Your task to perform on an android device: Open Amazon Image 0: 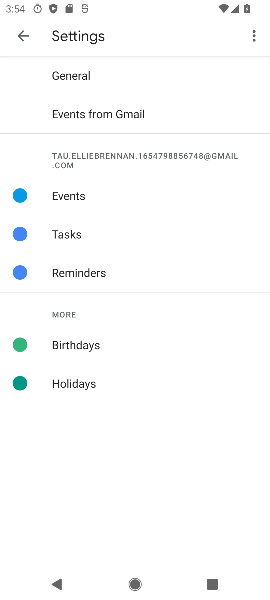
Step 0: click (17, 35)
Your task to perform on an android device: Open Amazon Image 1: 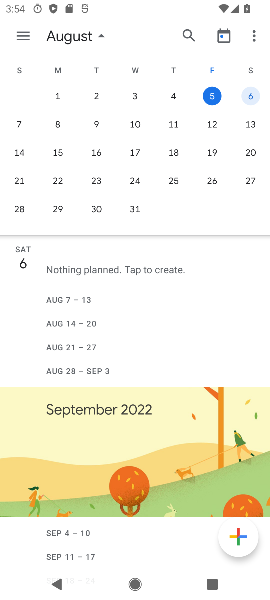
Step 1: press back button
Your task to perform on an android device: Open Amazon Image 2: 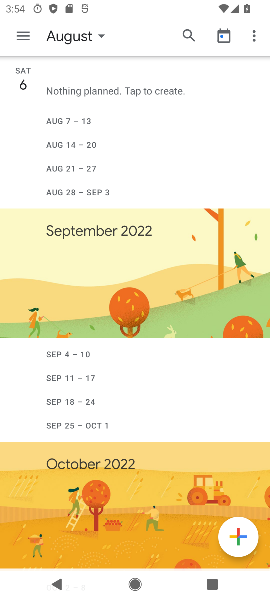
Step 2: press home button
Your task to perform on an android device: Open Amazon Image 3: 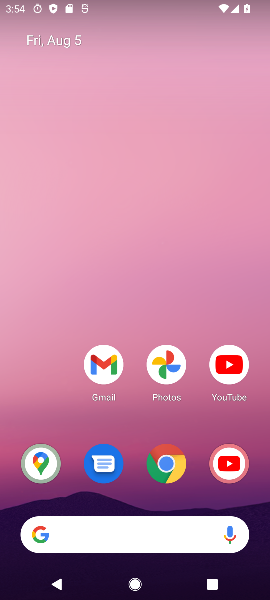
Step 3: drag from (185, 545) to (86, 394)
Your task to perform on an android device: Open Amazon Image 4: 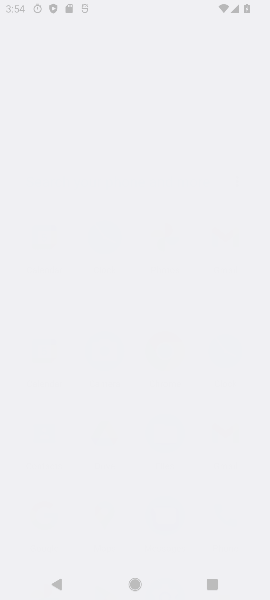
Step 4: drag from (133, 499) to (89, 88)
Your task to perform on an android device: Open Amazon Image 5: 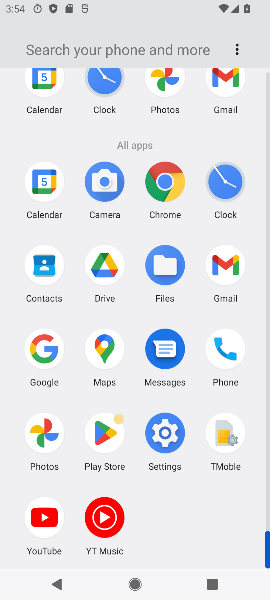
Step 5: drag from (180, 540) to (162, 318)
Your task to perform on an android device: Open Amazon Image 6: 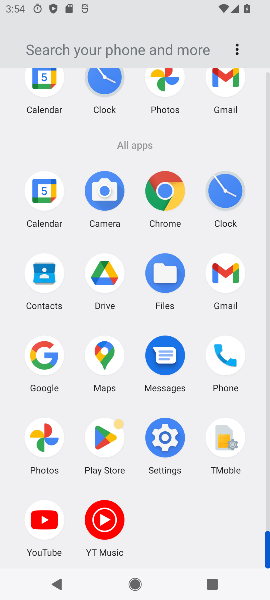
Step 6: click (168, 193)
Your task to perform on an android device: Open Amazon Image 7: 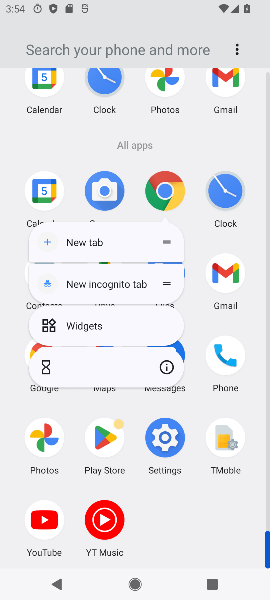
Step 7: click (168, 193)
Your task to perform on an android device: Open Amazon Image 8: 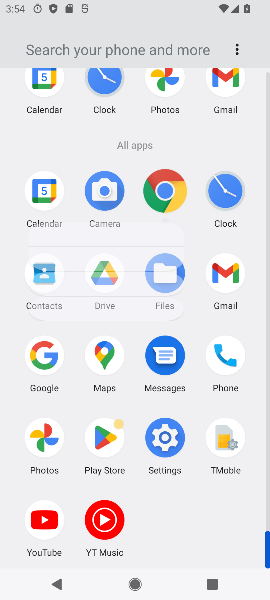
Step 8: click (168, 193)
Your task to perform on an android device: Open Amazon Image 9: 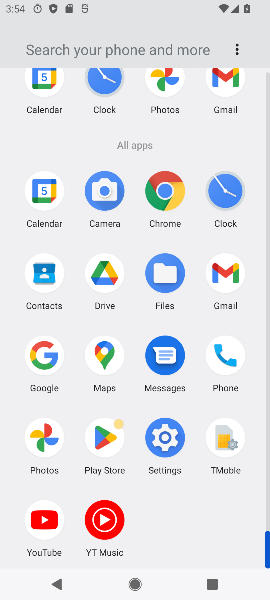
Step 9: click (168, 193)
Your task to perform on an android device: Open Amazon Image 10: 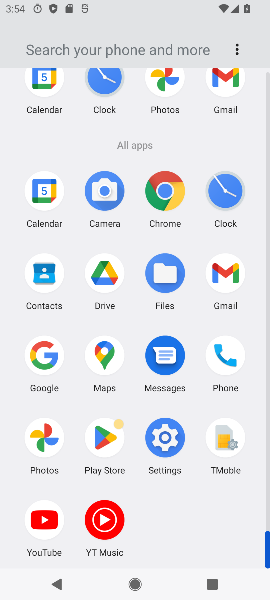
Step 10: click (168, 193)
Your task to perform on an android device: Open Amazon Image 11: 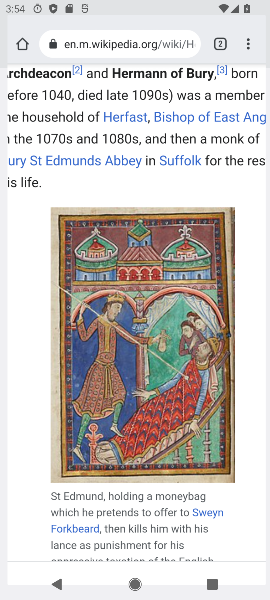
Step 11: click (173, 193)
Your task to perform on an android device: Open Amazon Image 12: 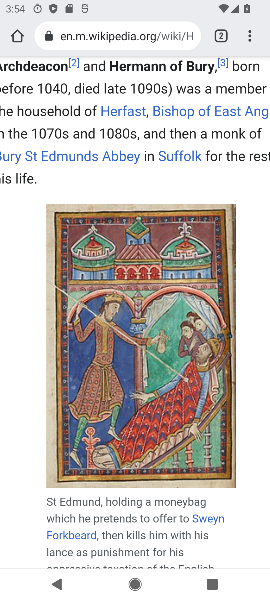
Step 12: drag from (247, 40) to (134, 72)
Your task to perform on an android device: Open Amazon Image 13: 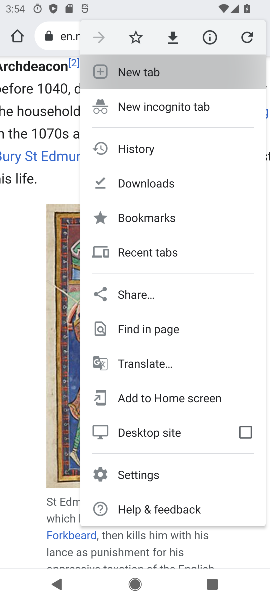
Step 13: click (136, 71)
Your task to perform on an android device: Open Amazon Image 14: 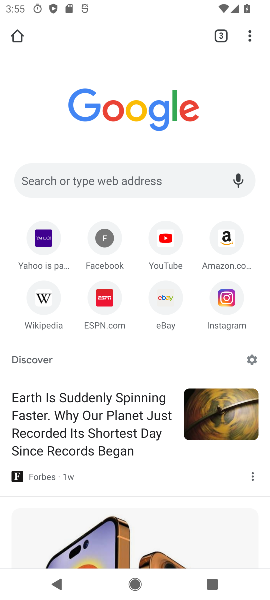
Step 14: click (226, 232)
Your task to perform on an android device: Open Amazon Image 15: 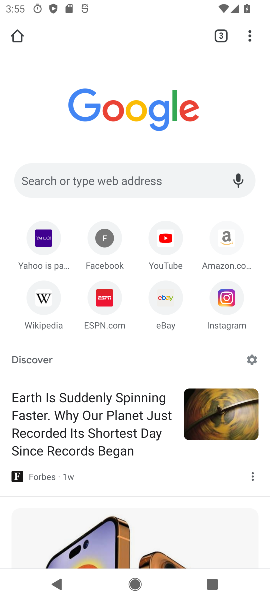
Step 15: click (229, 234)
Your task to perform on an android device: Open Amazon Image 16: 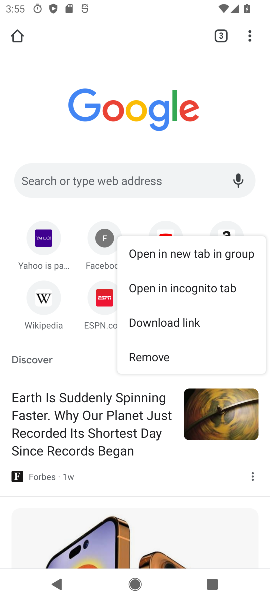
Step 16: click (182, 256)
Your task to perform on an android device: Open Amazon Image 17: 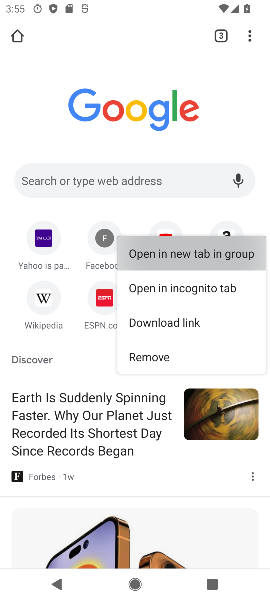
Step 17: click (182, 256)
Your task to perform on an android device: Open Amazon Image 18: 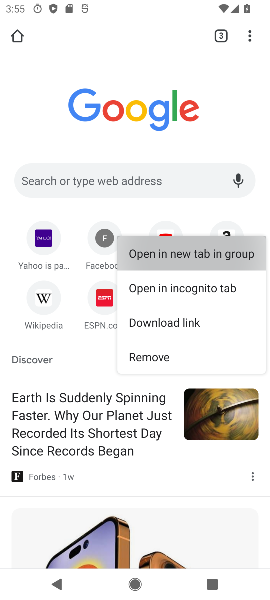
Step 18: click (182, 256)
Your task to perform on an android device: Open Amazon Image 19: 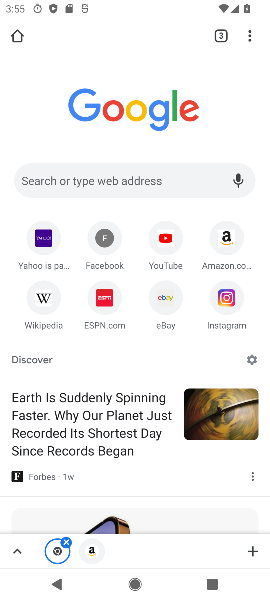
Step 19: click (231, 238)
Your task to perform on an android device: Open Amazon Image 20: 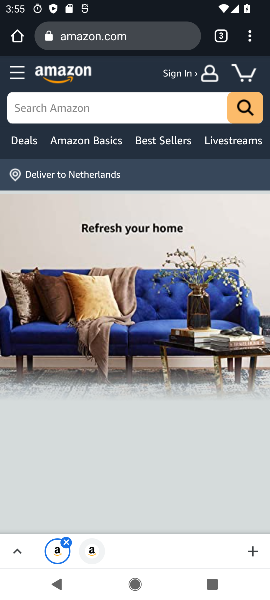
Step 20: task complete